Your task to perform on an android device: Go to Reddit.com Image 0: 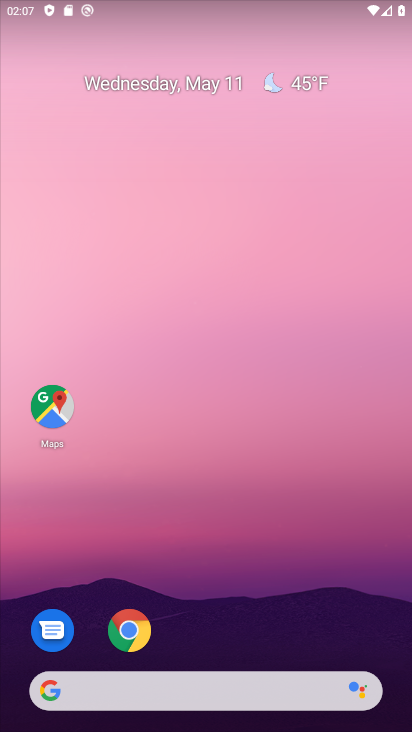
Step 0: click (129, 623)
Your task to perform on an android device: Go to Reddit.com Image 1: 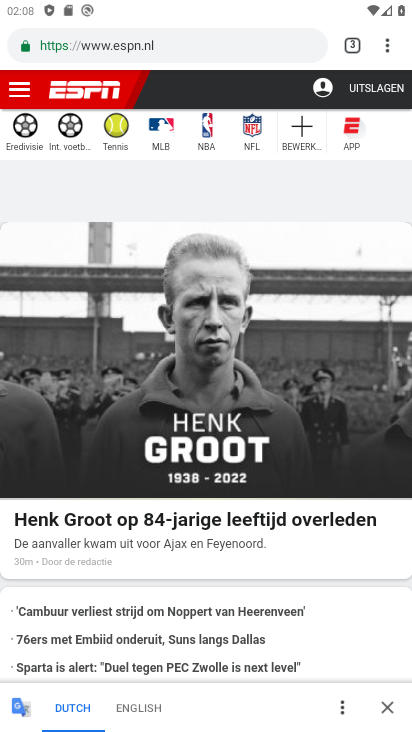
Step 1: click (387, 52)
Your task to perform on an android device: Go to Reddit.com Image 2: 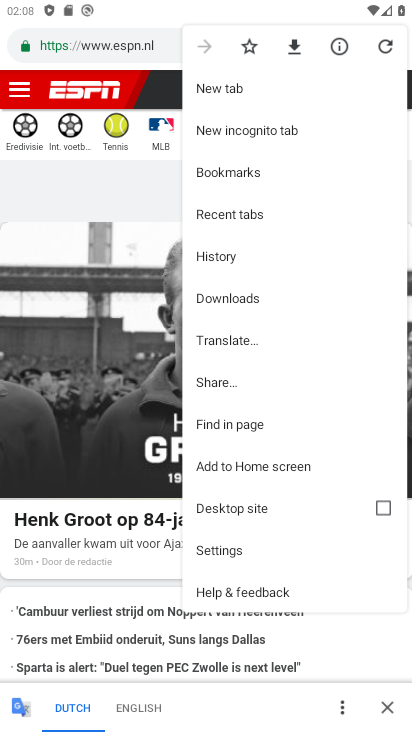
Step 2: click (222, 84)
Your task to perform on an android device: Go to Reddit.com Image 3: 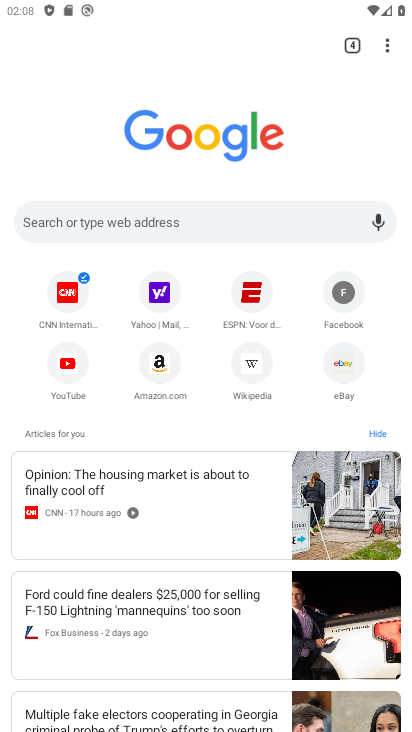
Step 3: click (175, 216)
Your task to perform on an android device: Go to Reddit.com Image 4: 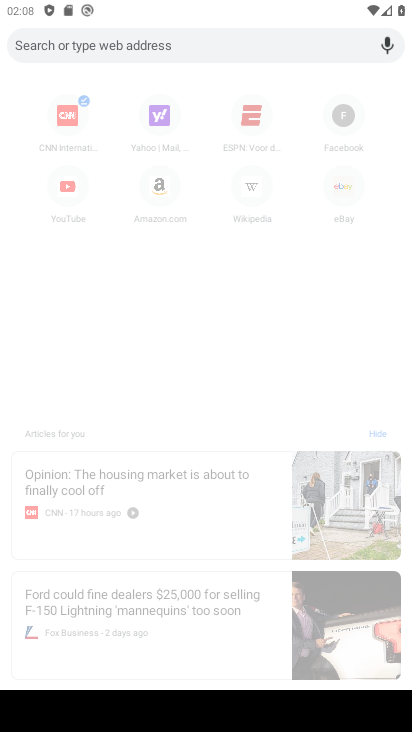
Step 4: type "Reddit.com"
Your task to perform on an android device: Go to Reddit.com Image 5: 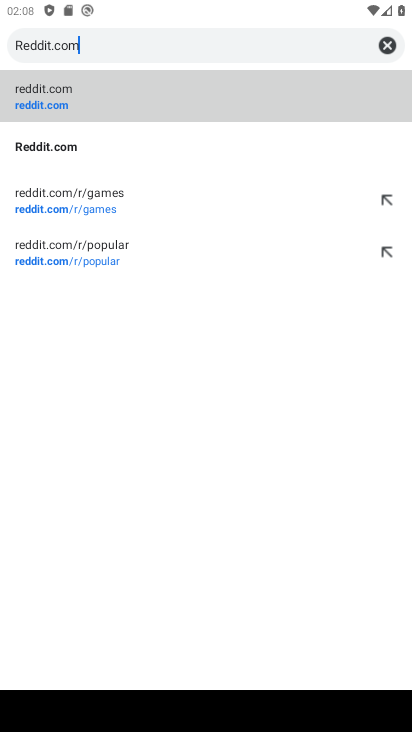
Step 5: click (56, 96)
Your task to perform on an android device: Go to Reddit.com Image 6: 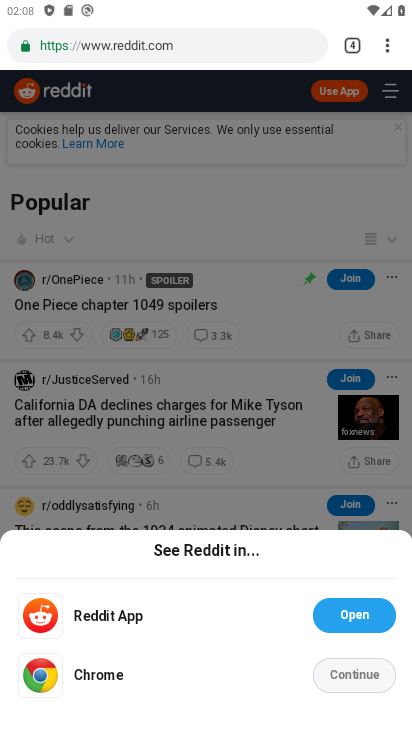
Step 6: task complete